Your task to perform on an android device: Open Google Chrome and open the bookmarks view Image 0: 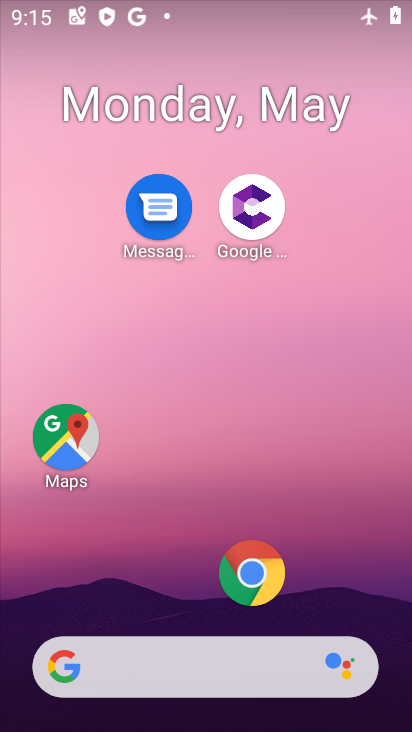
Step 0: drag from (175, 651) to (206, 136)
Your task to perform on an android device: Open Google Chrome and open the bookmarks view Image 1: 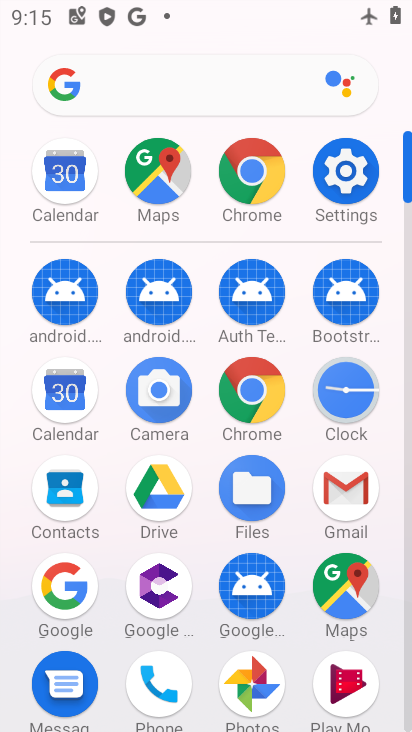
Step 1: click (264, 177)
Your task to perform on an android device: Open Google Chrome and open the bookmarks view Image 2: 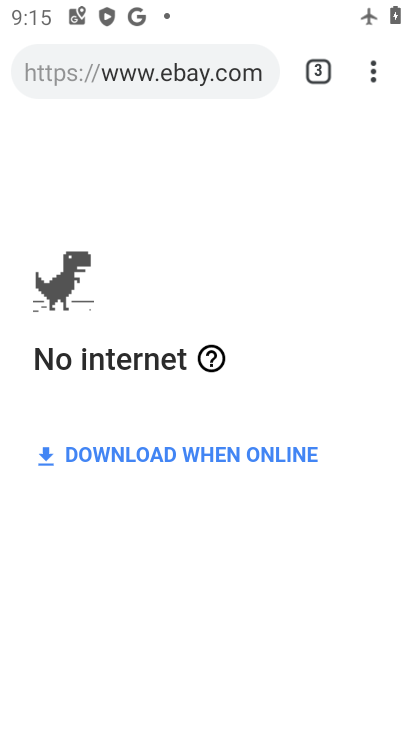
Step 2: click (368, 70)
Your task to perform on an android device: Open Google Chrome and open the bookmarks view Image 3: 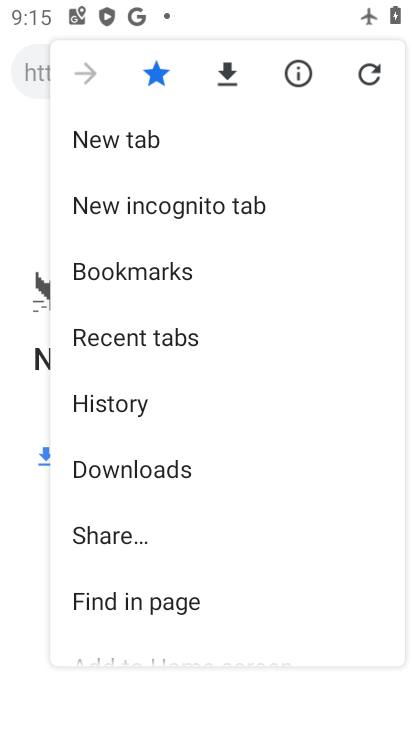
Step 3: drag from (320, 412) to (287, 289)
Your task to perform on an android device: Open Google Chrome and open the bookmarks view Image 4: 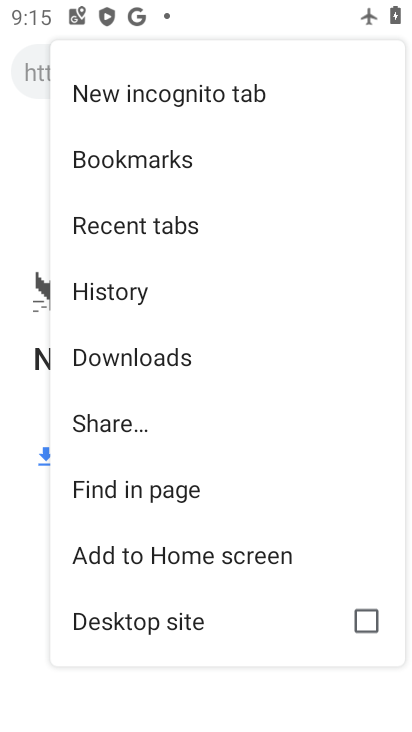
Step 4: click (173, 154)
Your task to perform on an android device: Open Google Chrome and open the bookmarks view Image 5: 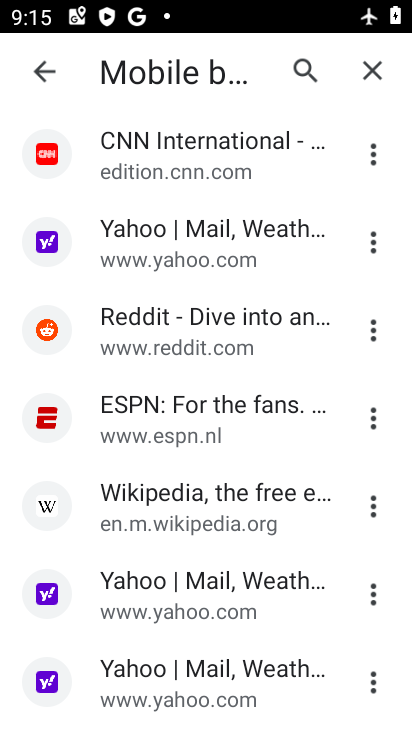
Step 5: task complete